Your task to perform on an android device: When is my next meeting? Image 0: 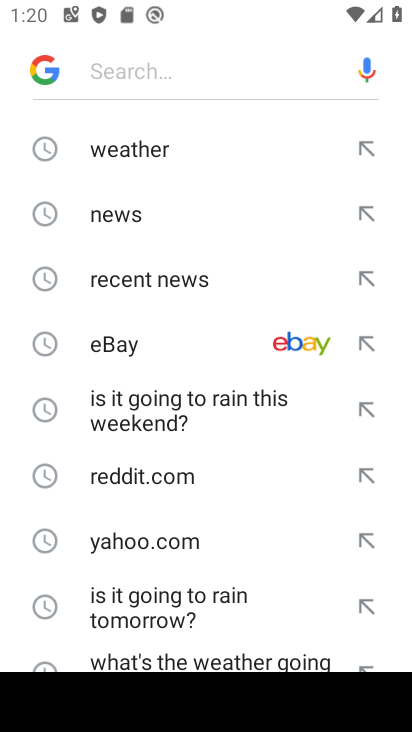
Step 0: press home button
Your task to perform on an android device: When is my next meeting? Image 1: 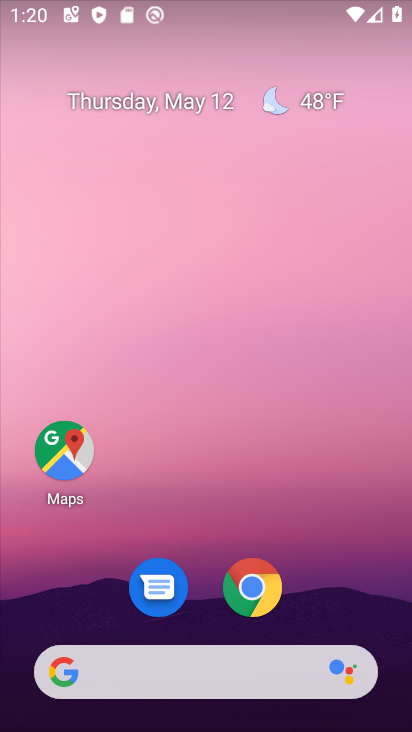
Step 1: drag from (206, 618) to (269, 101)
Your task to perform on an android device: When is my next meeting? Image 2: 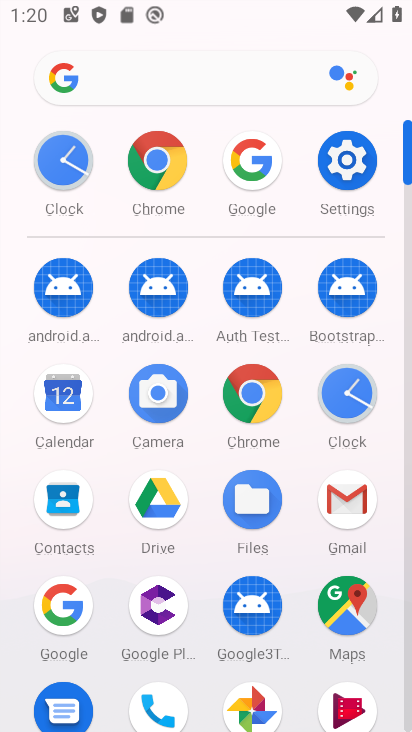
Step 2: click (63, 401)
Your task to perform on an android device: When is my next meeting? Image 3: 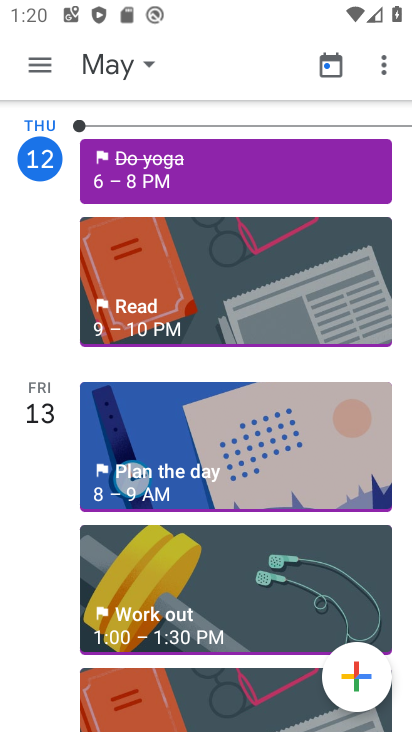
Step 3: task complete